Your task to perform on an android device: delete browsing data in the chrome app Image 0: 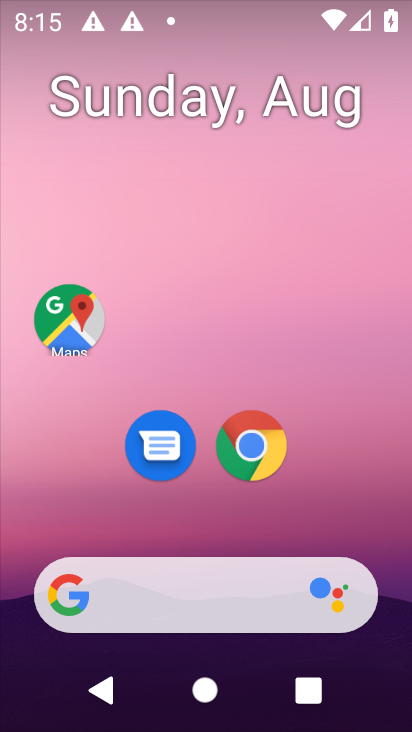
Step 0: click (250, 440)
Your task to perform on an android device: delete browsing data in the chrome app Image 1: 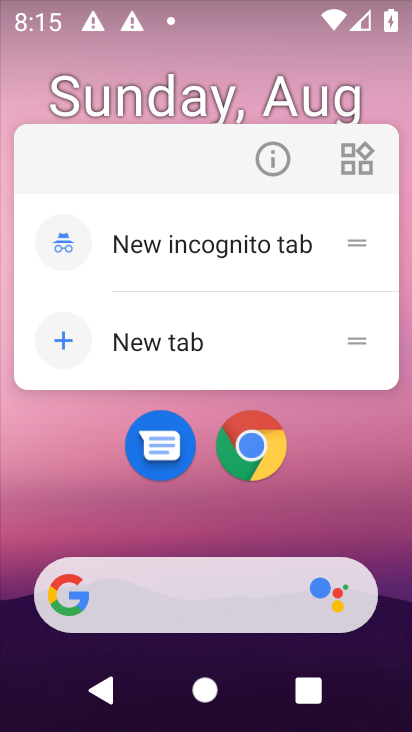
Step 1: click (244, 440)
Your task to perform on an android device: delete browsing data in the chrome app Image 2: 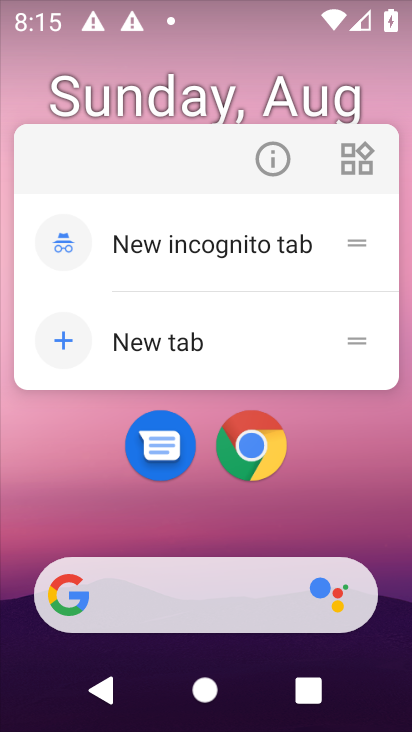
Step 2: click (246, 440)
Your task to perform on an android device: delete browsing data in the chrome app Image 3: 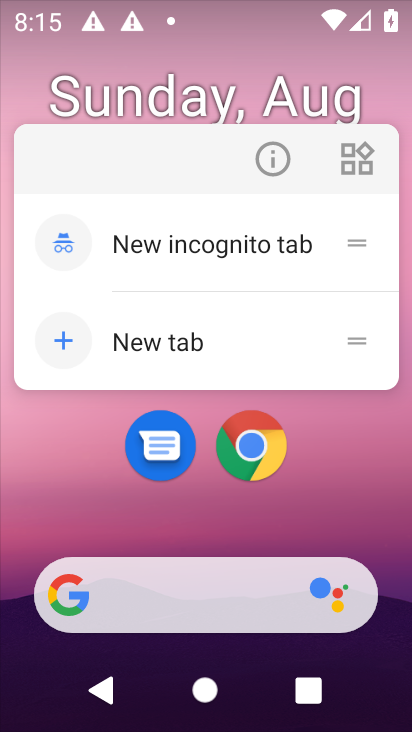
Step 3: click (281, 480)
Your task to perform on an android device: delete browsing data in the chrome app Image 4: 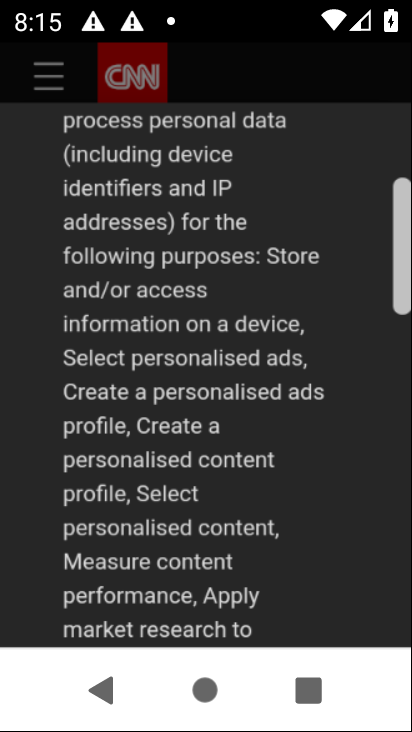
Step 4: drag from (331, 529) to (335, 173)
Your task to perform on an android device: delete browsing data in the chrome app Image 5: 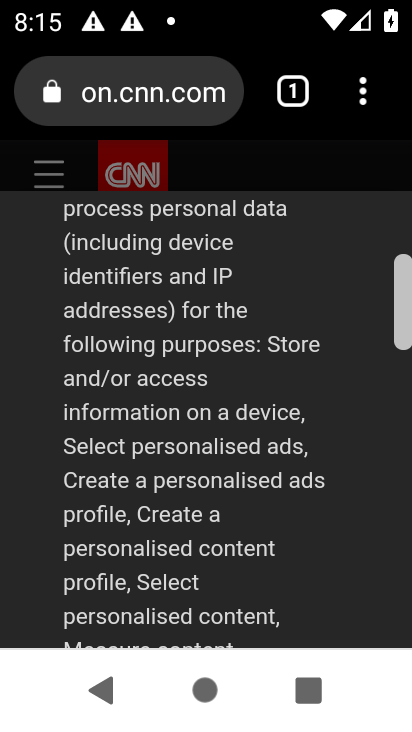
Step 5: click (291, 94)
Your task to perform on an android device: delete browsing data in the chrome app Image 6: 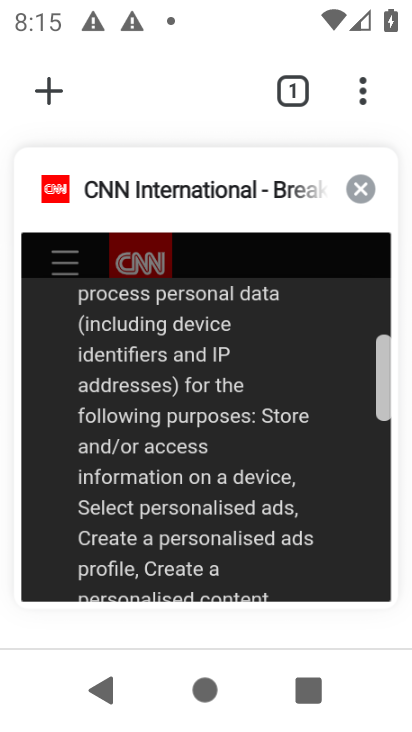
Step 6: click (44, 90)
Your task to perform on an android device: delete browsing data in the chrome app Image 7: 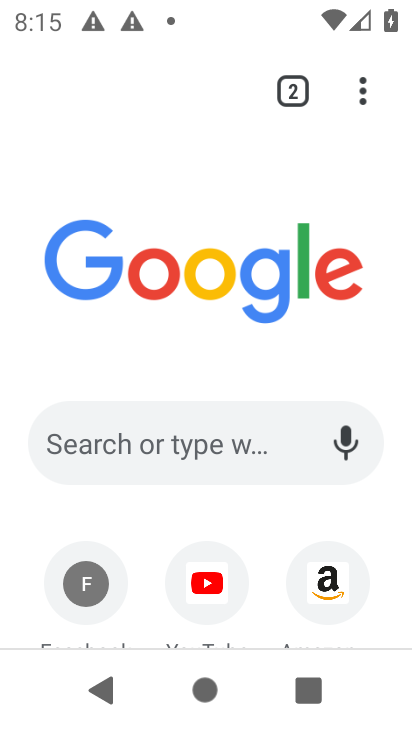
Step 7: click (360, 87)
Your task to perform on an android device: delete browsing data in the chrome app Image 8: 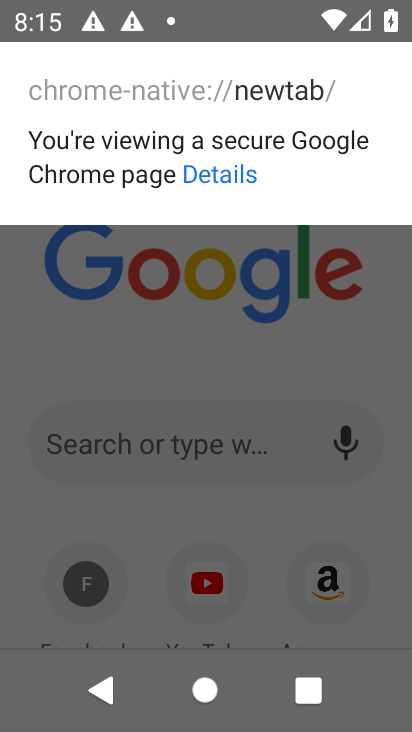
Step 8: click (250, 428)
Your task to perform on an android device: delete browsing data in the chrome app Image 9: 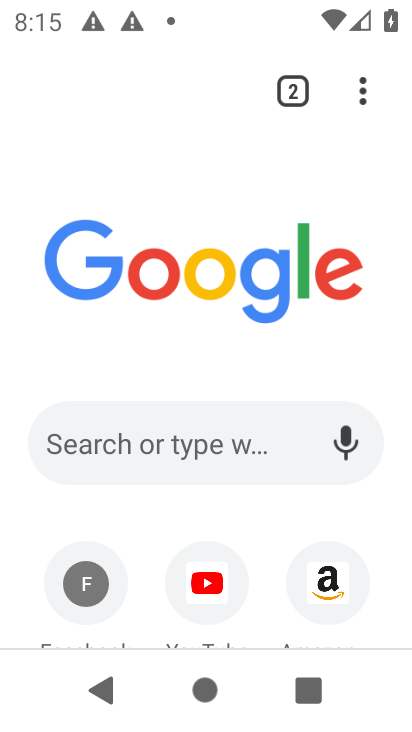
Step 9: click (357, 87)
Your task to perform on an android device: delete browsing data in the chrome app Image 10: 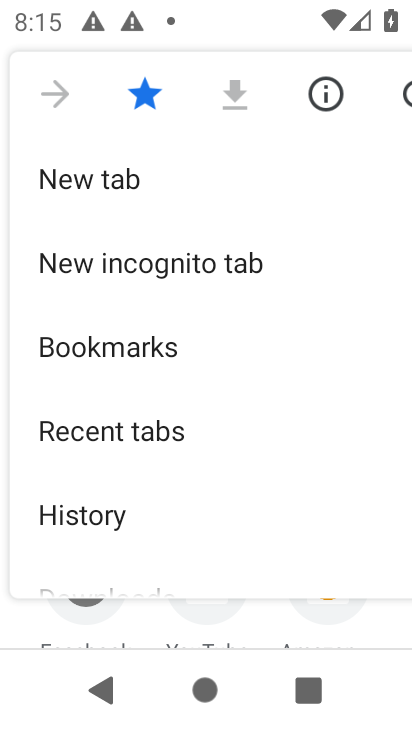
Step 10: click (141, 509)
Your task to perform on an android device: delete browsing data in the chrome app Image 11: 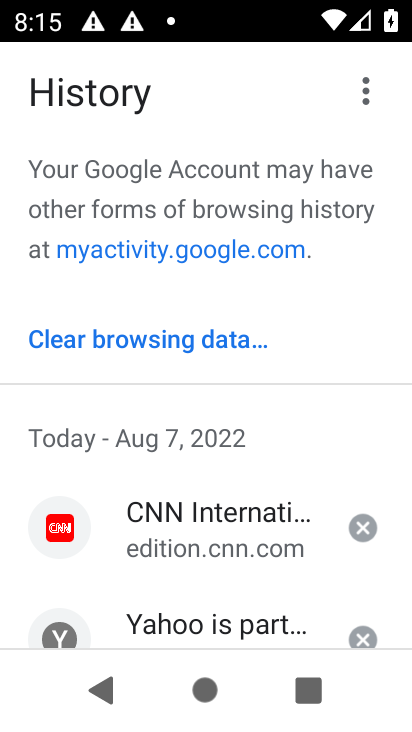
Step 11: click (143, 339)
Your task to perform on an android device: delete browsing data in the chrome app Image 12: 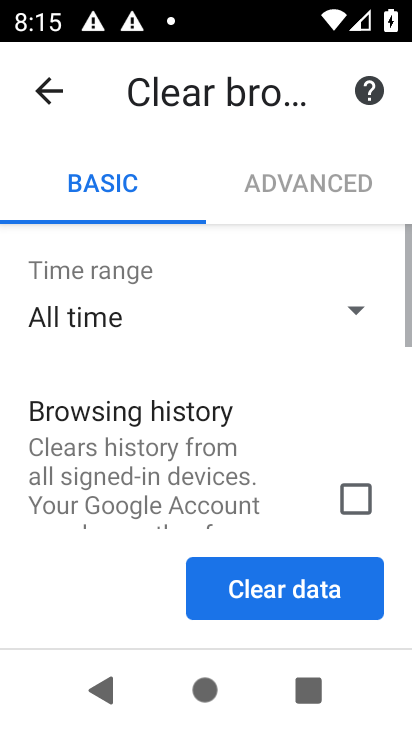
Step 12: click (355, 496)
Your task to perform on an android device: delete browsing data in the chrome app Image 13: 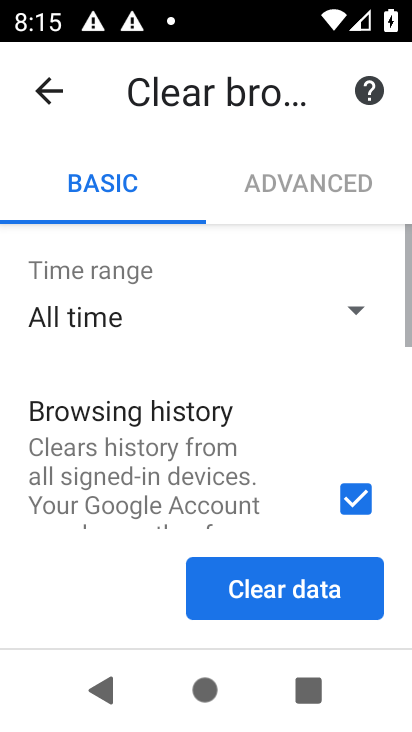
Step 13: drag from (220, 484) to (208, 167)
Your task to perform on an android device: delete browsing data in the chrome app Image 14: 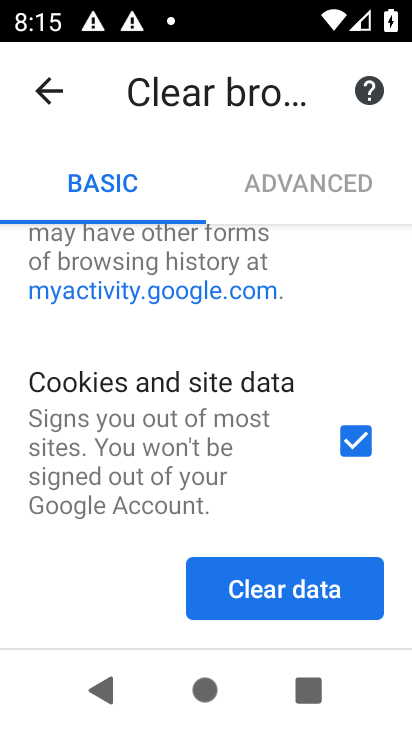
Step 14: click (365, 432)
Your task to perform on an android device: delete browsing data in the chrome app Image 15: 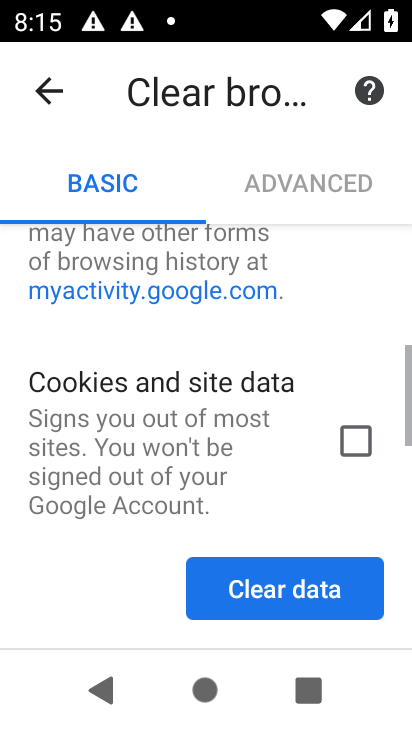
Step 15: drag from (212, 470) to (211, 185)
Your task to perform on an android device: delete browsing data in the chrome app Image 16: 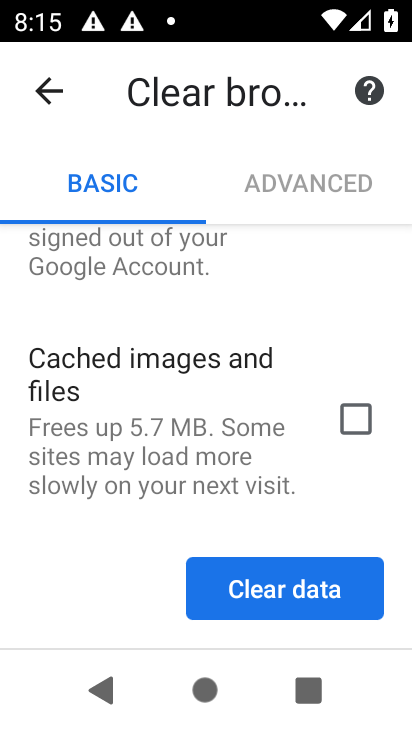
Step 16: click (293, 592)
Your task to perform on an android device: delete browsing data in the chrome app Image 17: 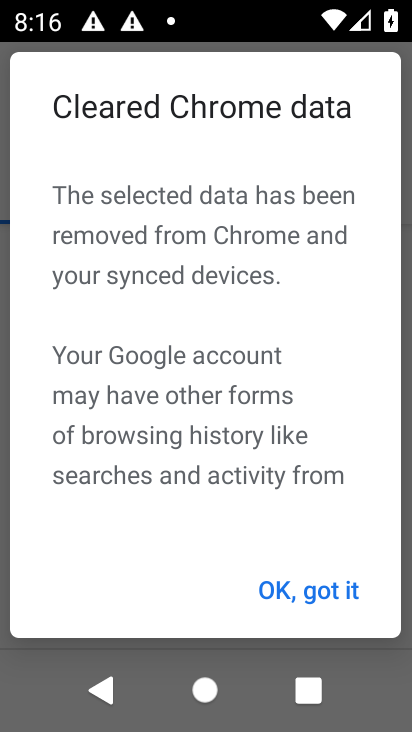
Step 17: click (306, 578)
Your task to perform on an android device: delete browsing data in the chrome app Image 18: 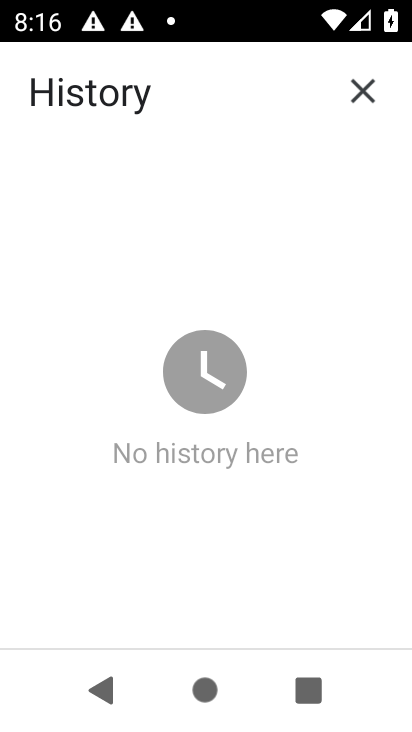
Step 18: task complete